Your task to perform on an android device: Check the weather Image 0: 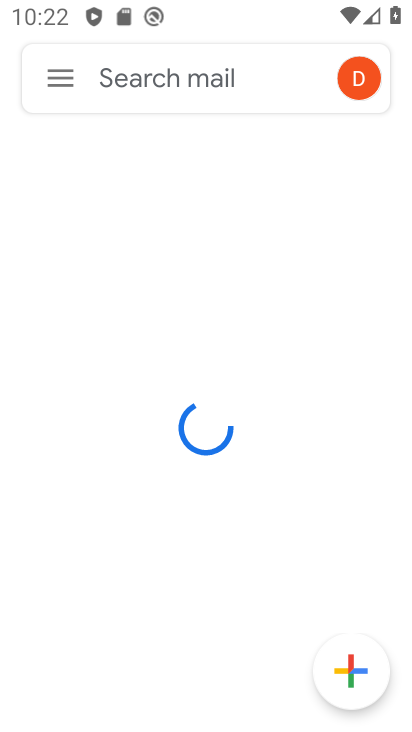
Step 0: press home button
Your task to perform on an android device: Check the weather Image 1: 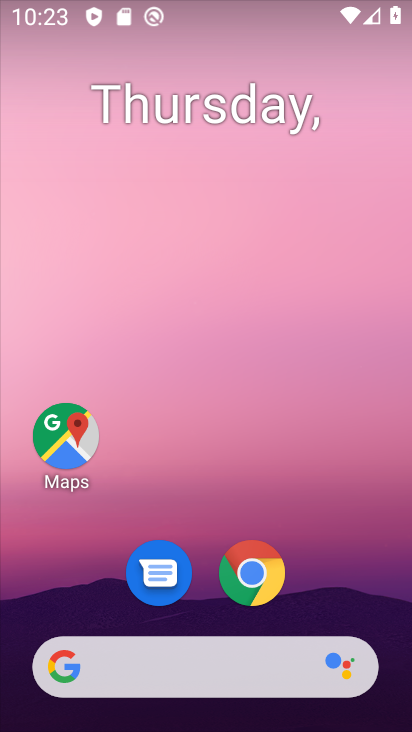
Step 1: click (330, 553)
Your task to perform on an android device: Check the weather Image 2: 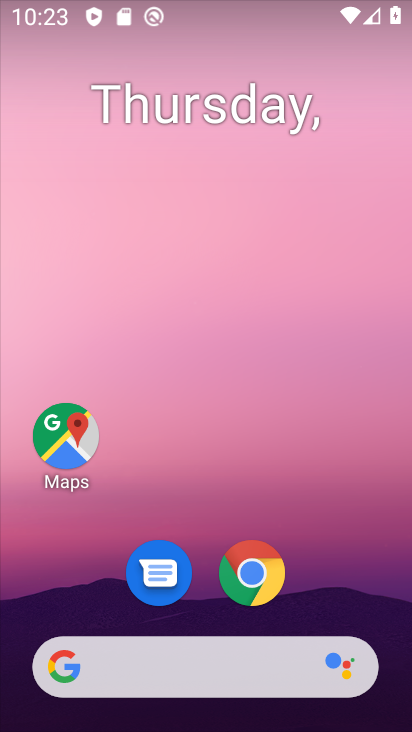
Step 2: click (257, 570)
Your task to perform on an android device: Check the weather Image 3: 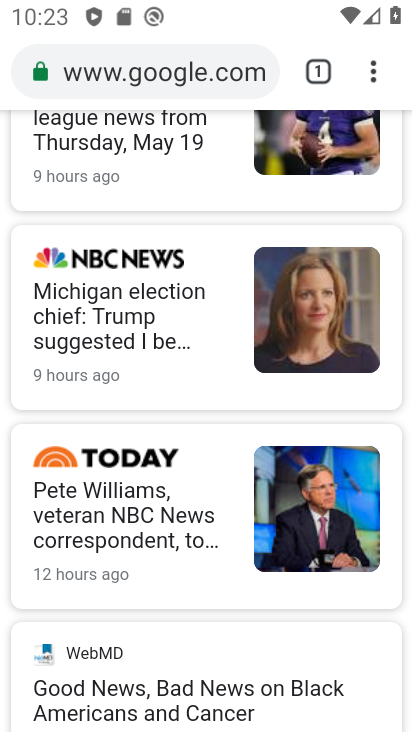
Step 3: click (158, 77)
Your task to perform on an android device: Check the weather Image 4: 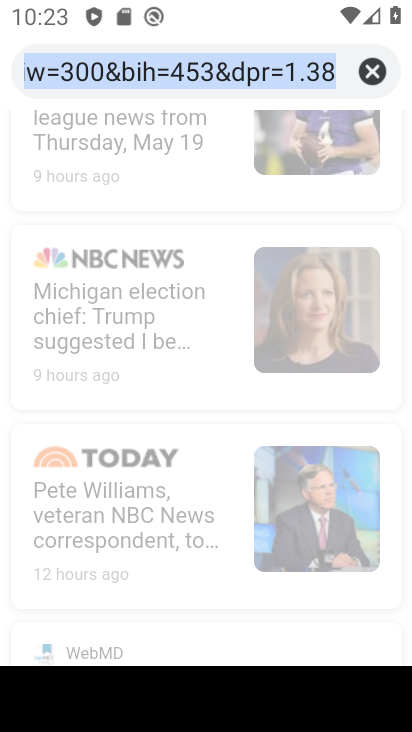
Step 4: type "weather"
Your task to perform on an android device: Check the weather Image 5: 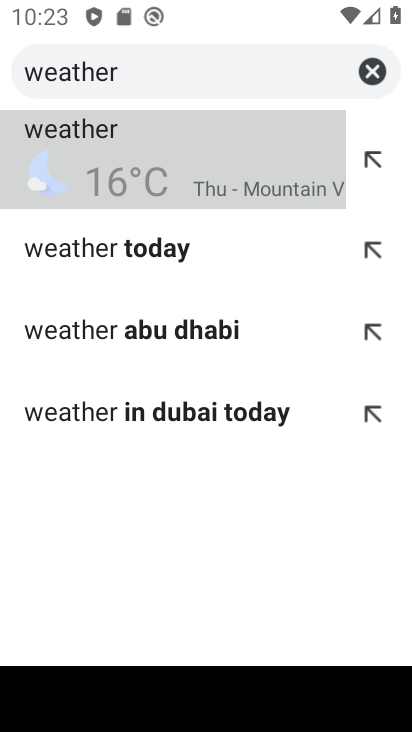
Step 5: click (86, 135)
Your task to perform on an android device: Check the weather Image 6: 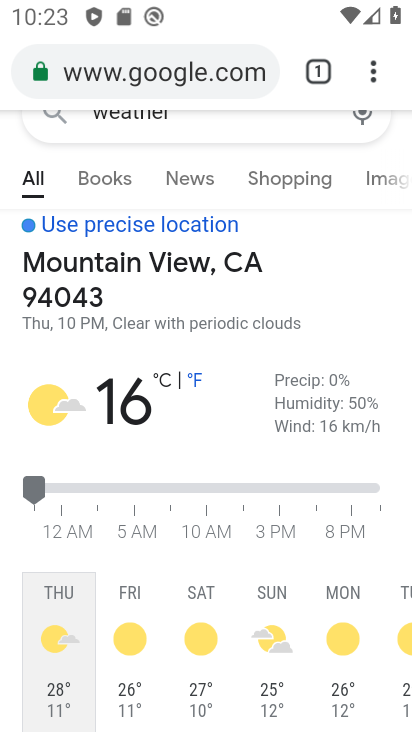
Step 6: task complete